Your task to perform on an android device: turn on location history Image 0: 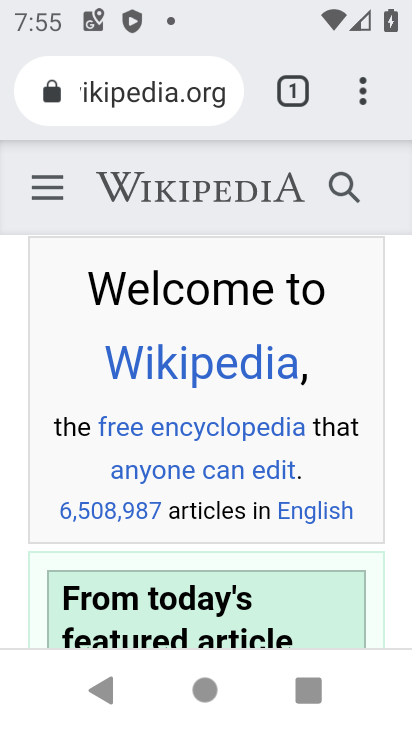
Step 0: press home button
Your task to perform on an android device: turn on location history Image 1: 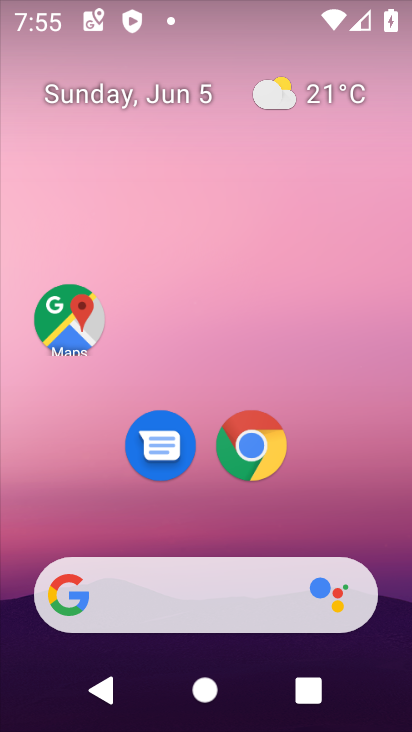
Step 1: drag from (352, 500) to (334, 78)
Your task to perform on an android device: turn on location history Image 2: 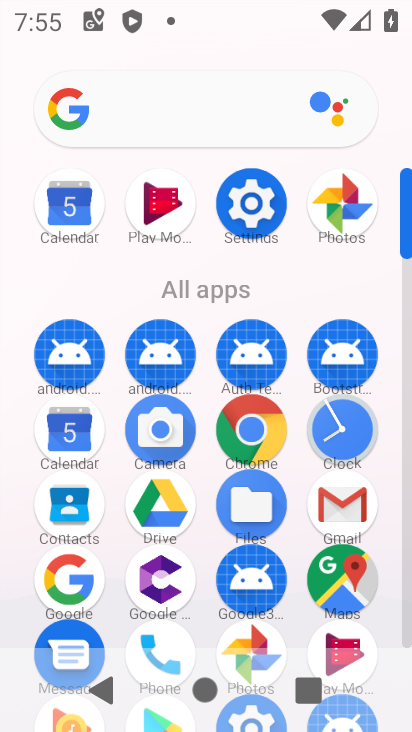
Step 2: click (248, 201)
Your task to perform on an android device: turn on location history Image 3: 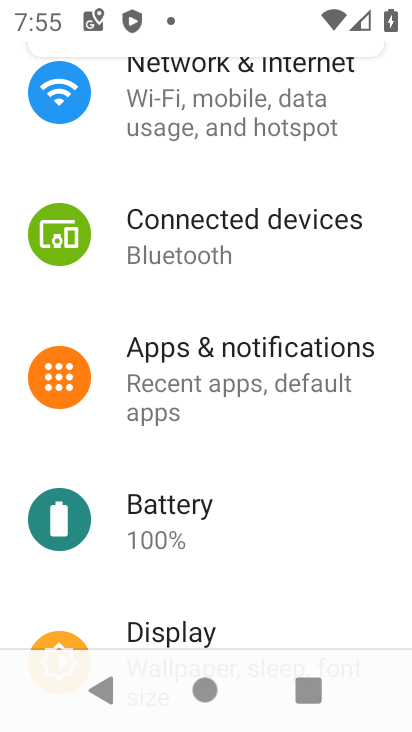
Step 3: drag from (330, 531) to (331, 37)
Your task to perform on an android device: turn on location history Image 4: 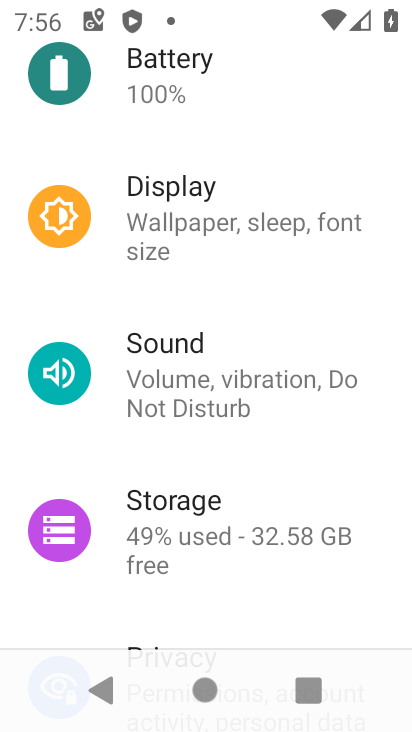
Step 4: drag from (279, 595) to (269, 149)
Your task to perform on an android device: turn on location history Image 5: 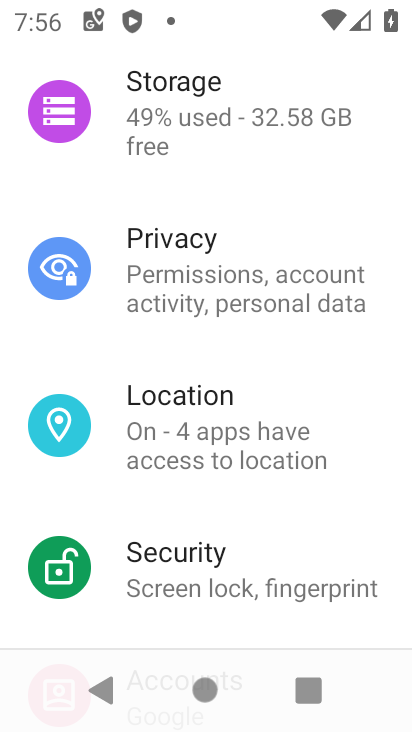
Step 5: click (251, 409)
Your task to perform on an android device: turn on location history Image 6: 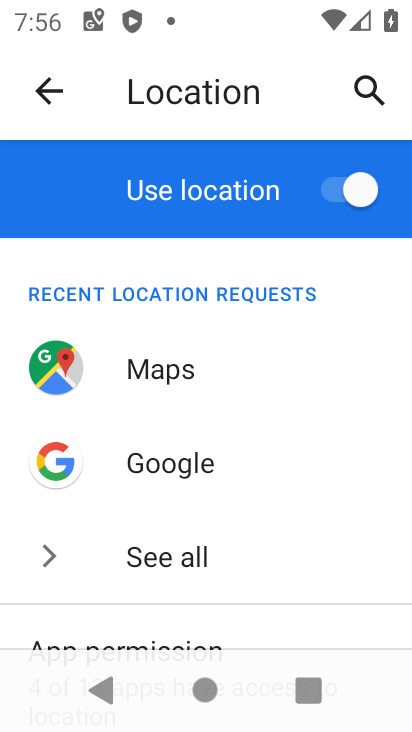
Step 6: drag from (262, 620) to (243, 203)
Your task to perform on an android device: turn on location history Image 7: 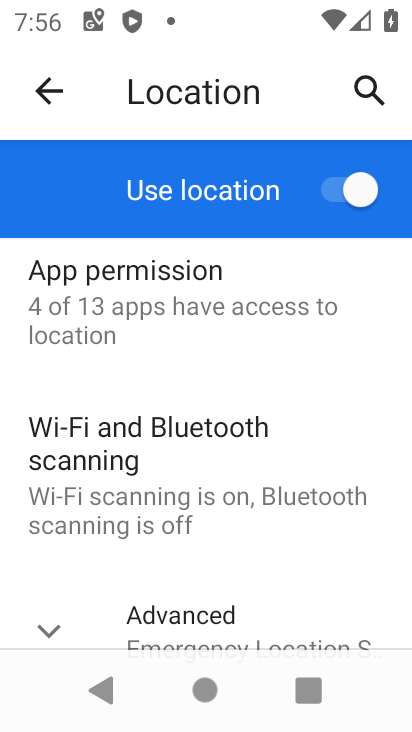
Step 7: drag from (300, 592) to (264, 349)
Your task to perform on an android device: turn on location history Image 8: 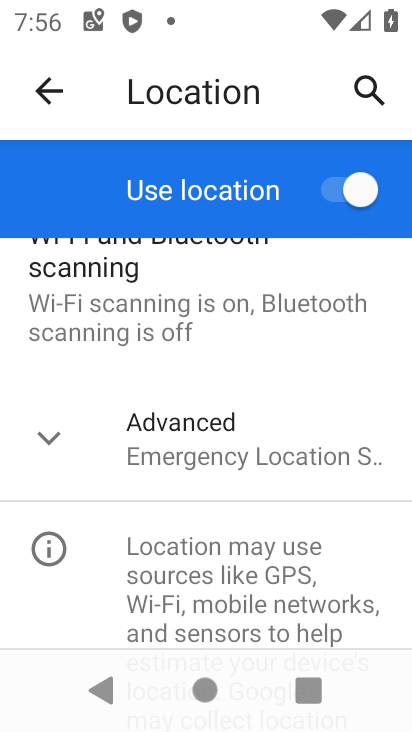
Step 8: click (61, 434)
Your task to perform on an android device: turn on location history Image 9: 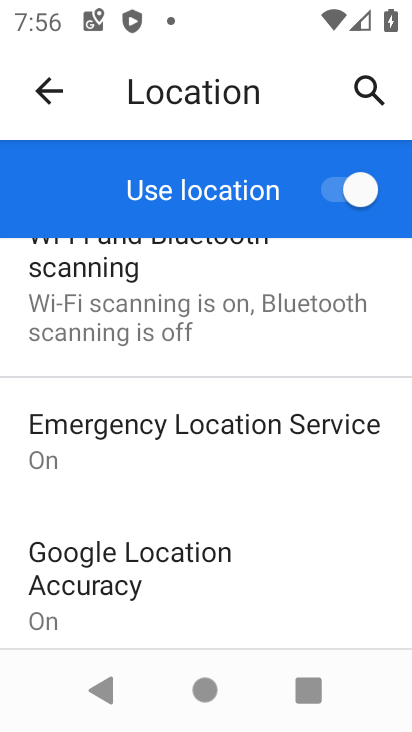
Step 9: drag from (386, 580) to (354, 324)
Your task to perform on an android device: turn on location history Image 10: 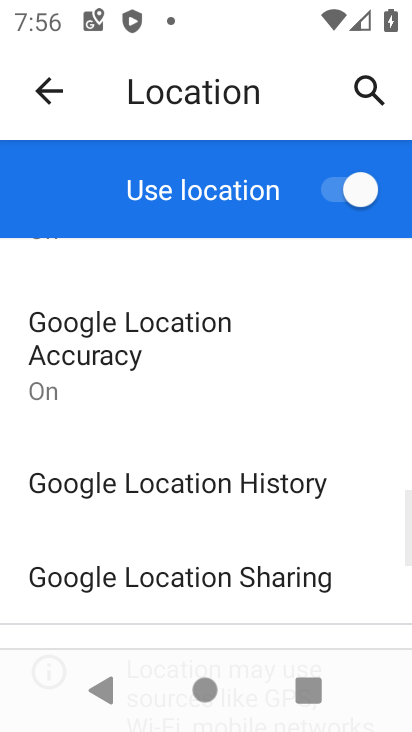
Step 10: click (199, 484)
Your task to perform on an android device: turn on location history Image 11: 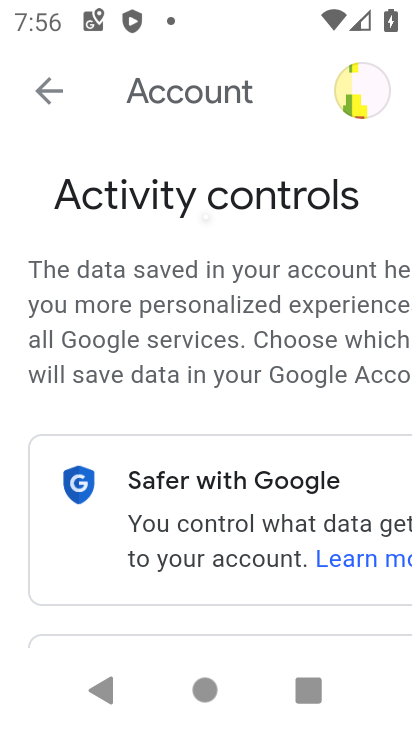
Step 11: task complete